Your task to perform on an android device: Open Wikipedia Image 0: 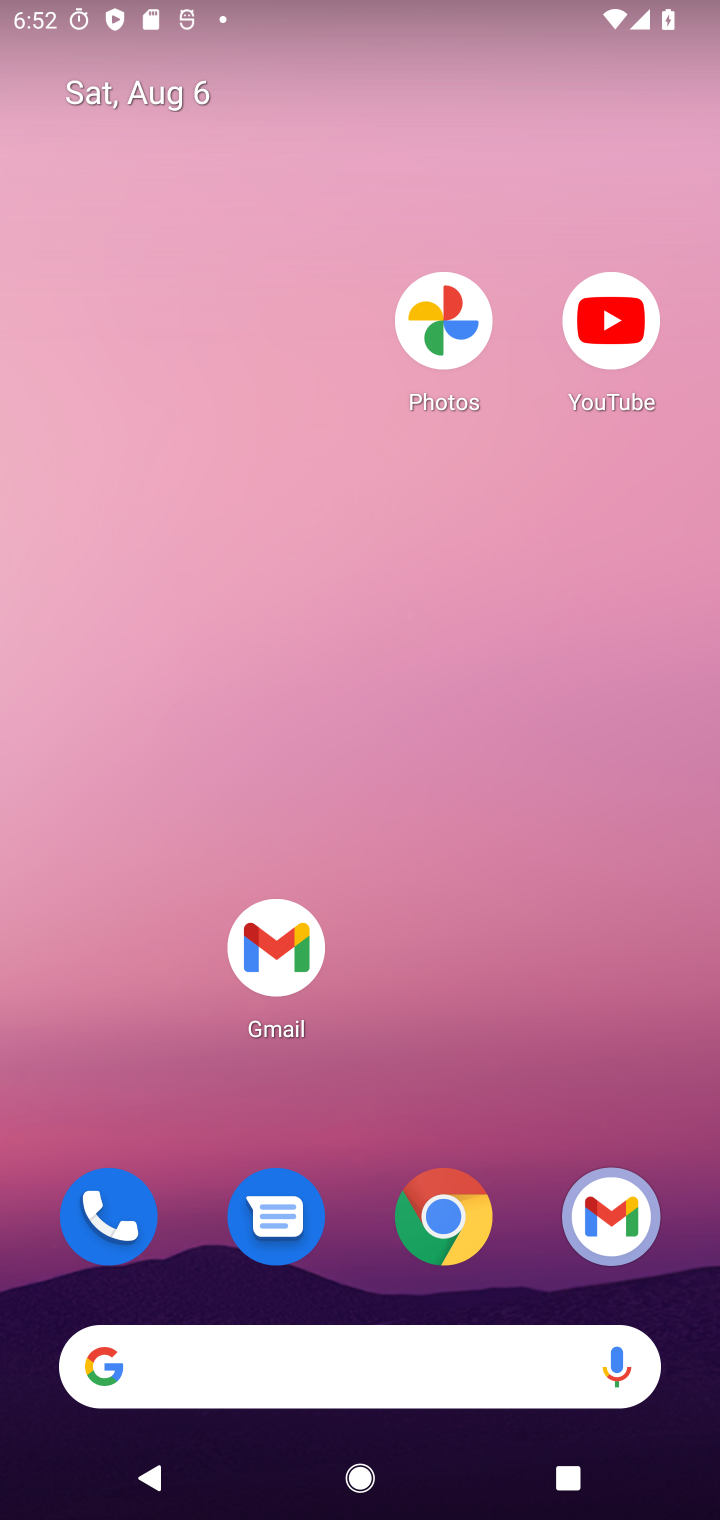
Step 0: drag from (555, 875) to (640, 331)
Your task to perform on an android device: Open Wikipedia Image 1: 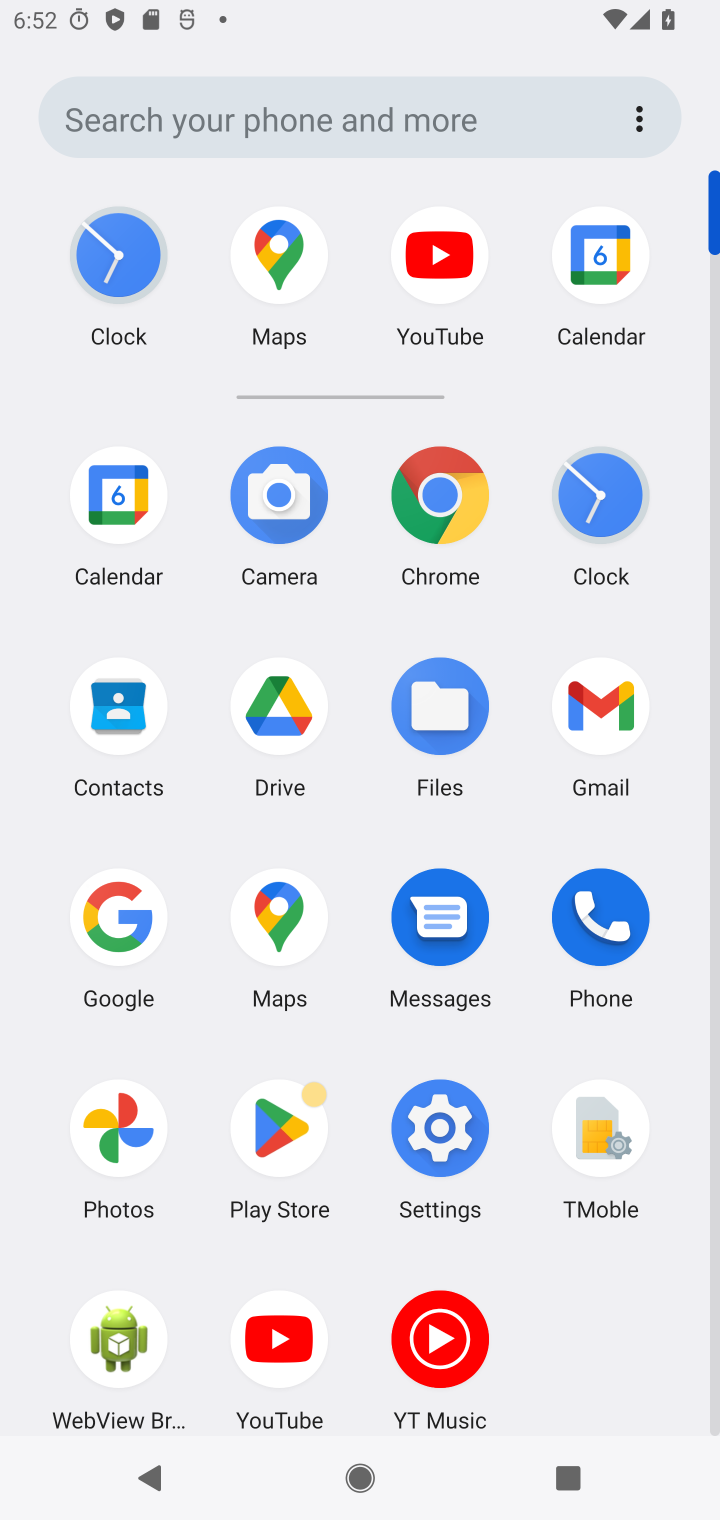
Step 1: click (419, 504)
Your task to perform on an android device: Open Wikipedia Image 2: 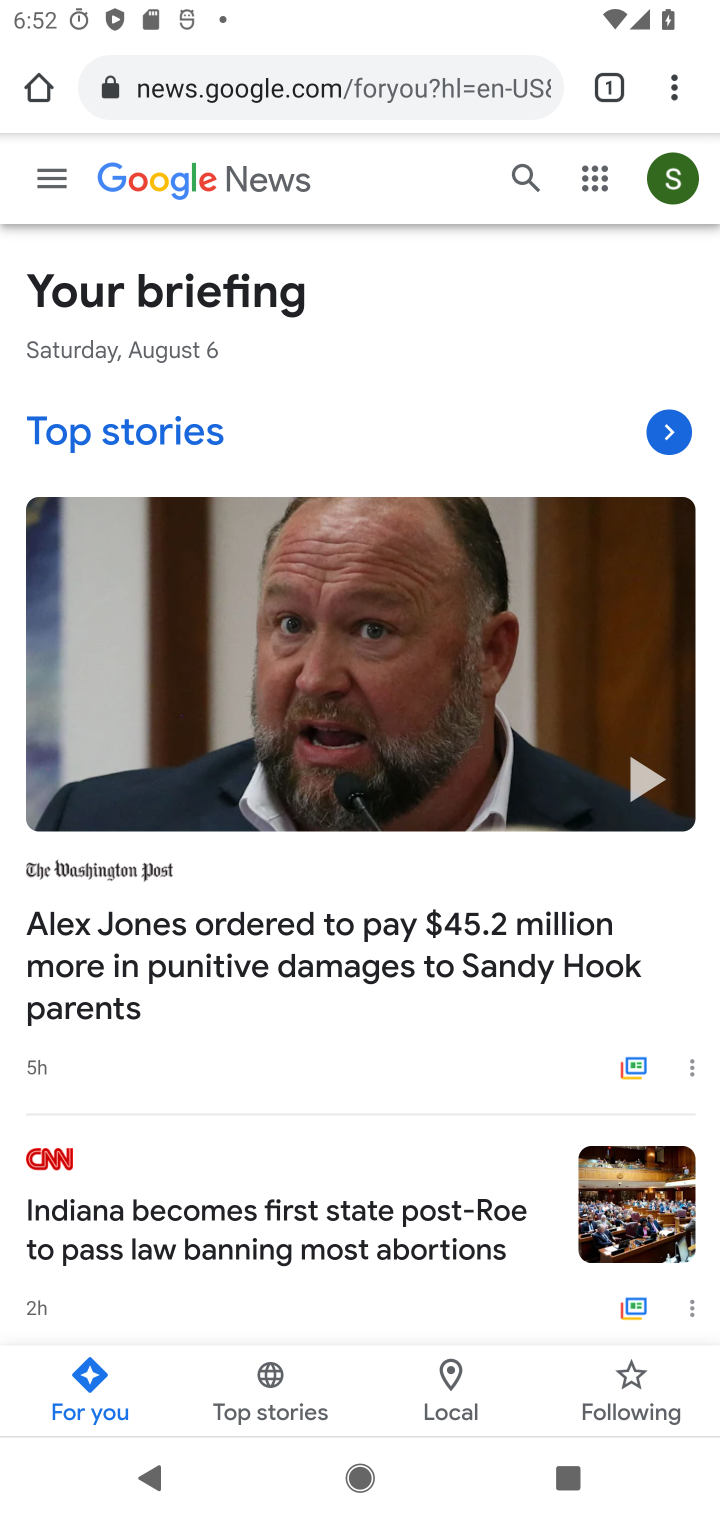
Step 2: click (427, 74)
Your task to perform on an android device: Open Wikipedia Image 3: 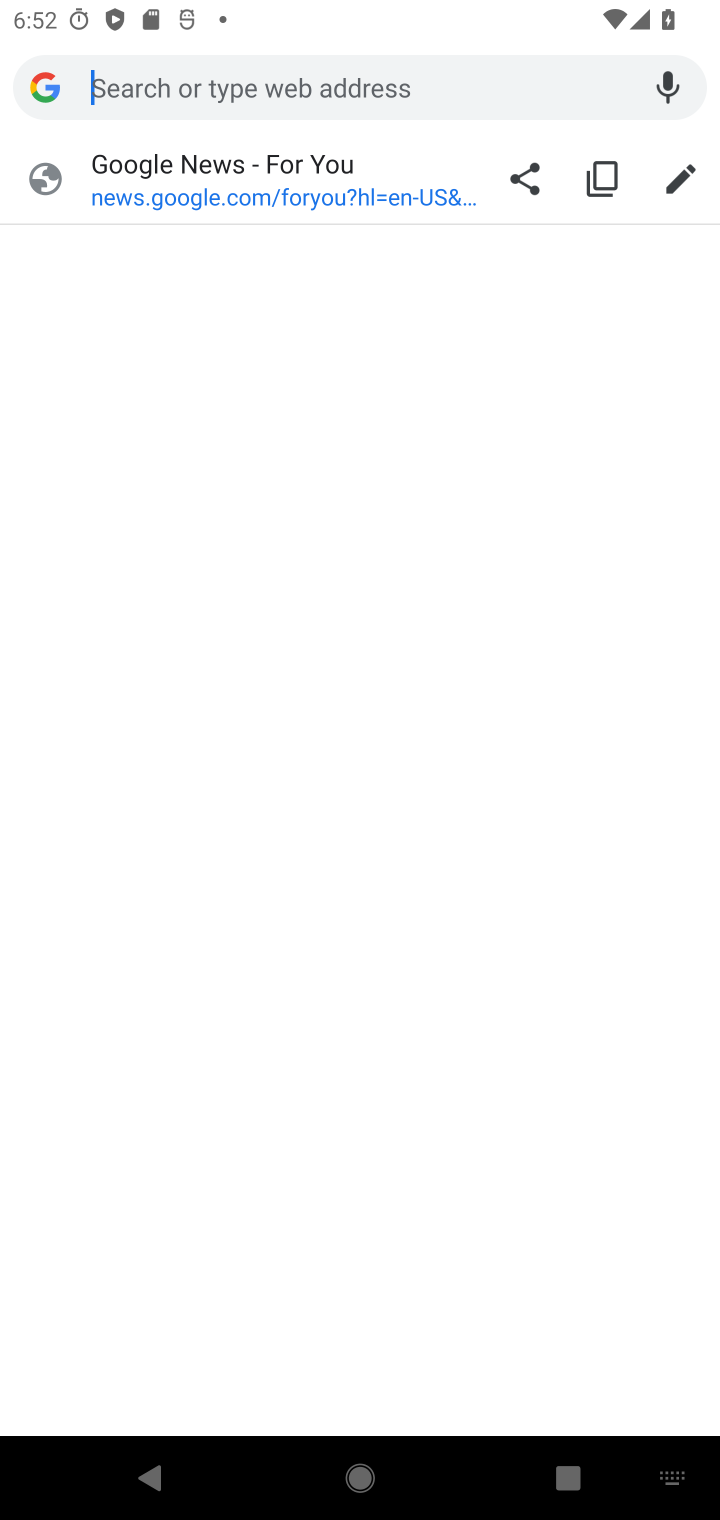
Step 3: type "wikipedia"
Your task to perform on an android device: Open Wikipedia Image 4: 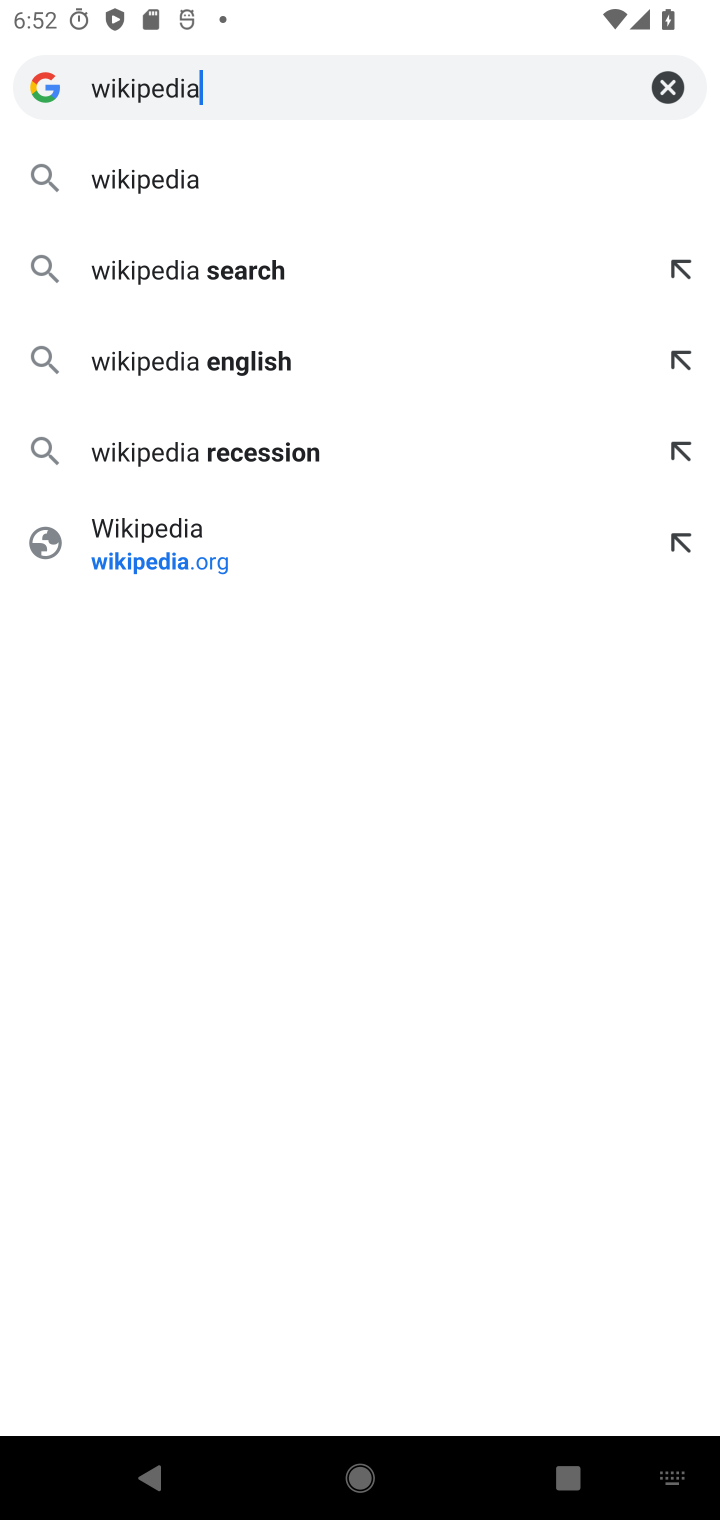
Step 4: press enter
Your task to perform on an android device: Open Wikipedia Image 5: 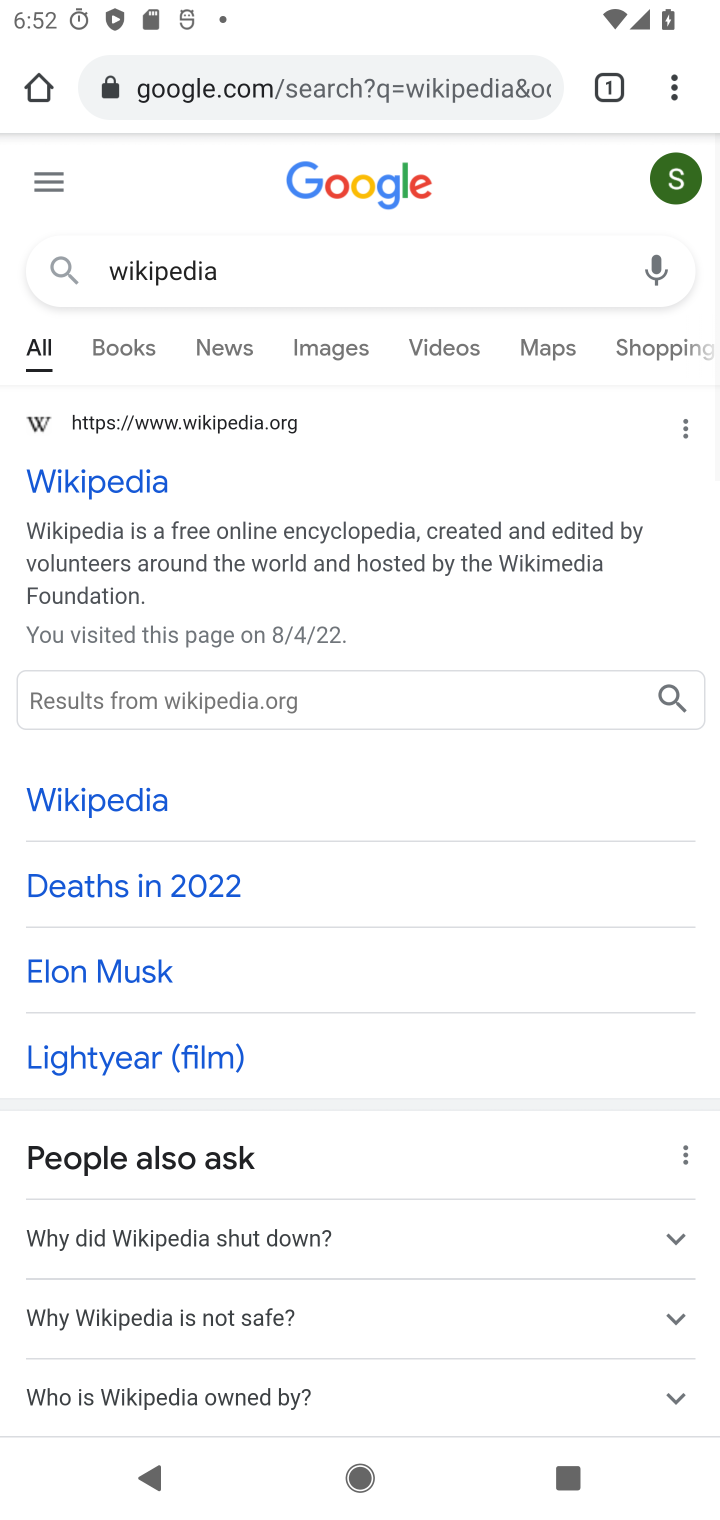
Step 5: click (86, 486)
Your task to perform on an android device: Open Wikipedia Image 6: 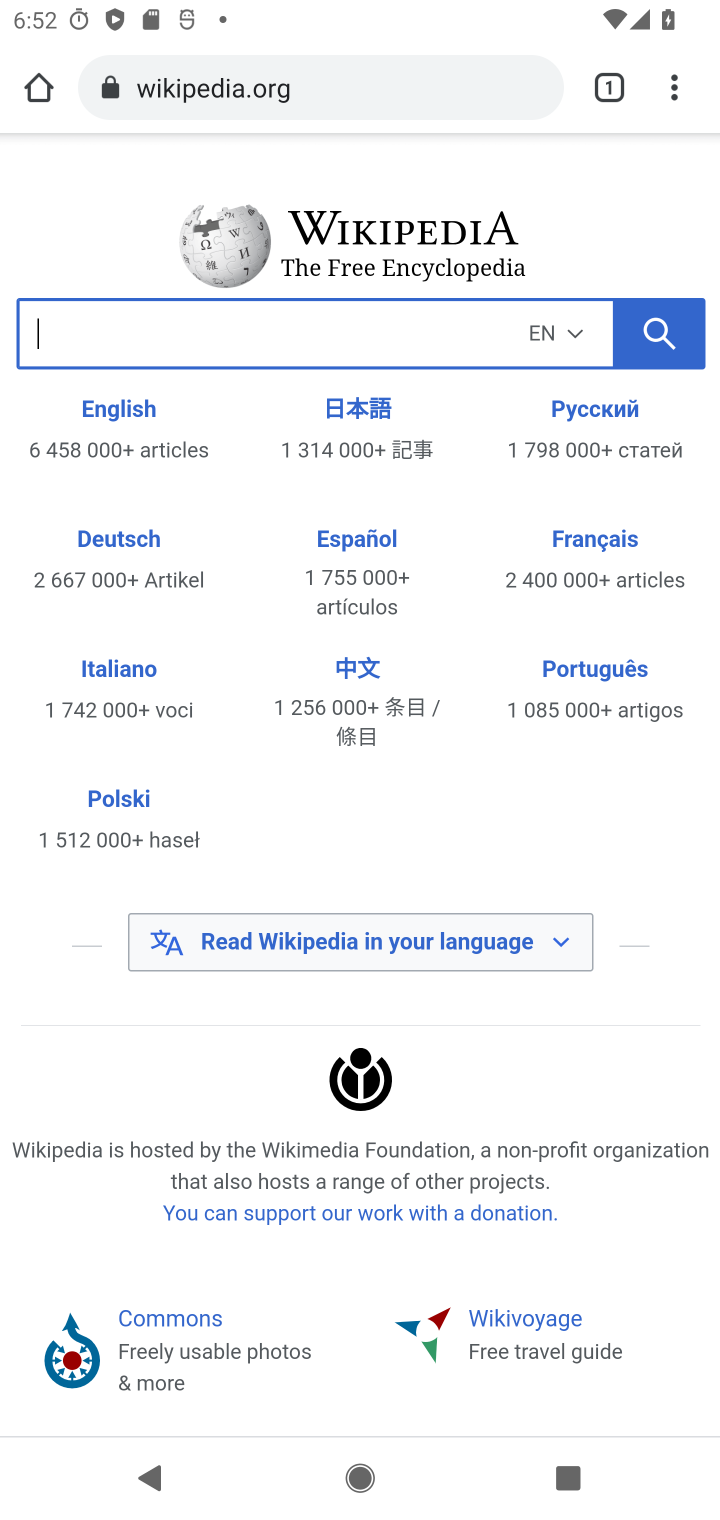
Step 6: task complete